Your task to perform on an android device: Go to ESPN.com Image 0: 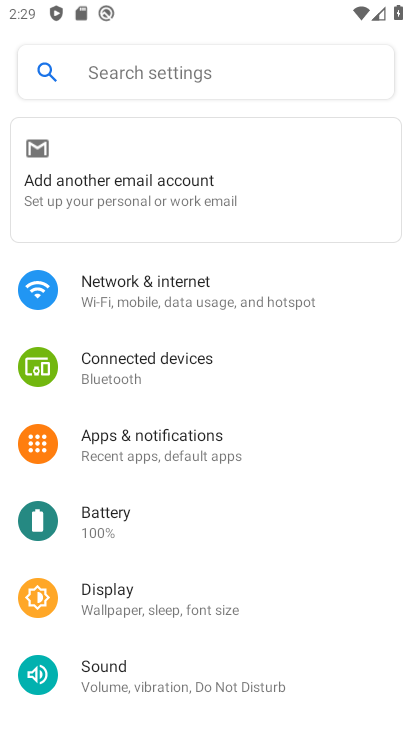
Step 0: press home button
Your task to perform on an android device: Go to ESPN.com Image 1: 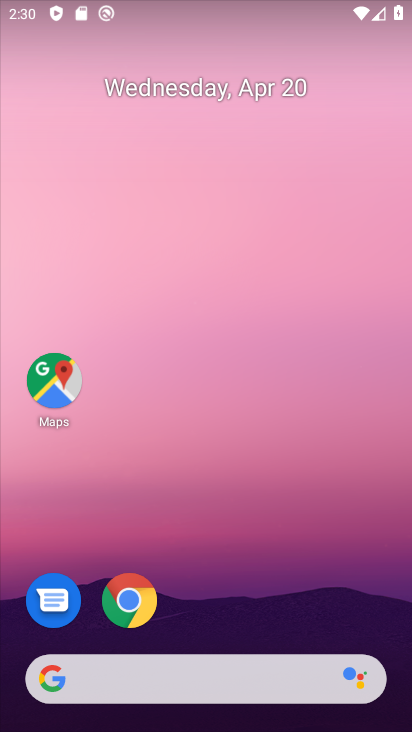
Step 1: drag from (230, 408) to (260, 96)
Your task to perform on an android device: Go to ESPN.com Image 2: 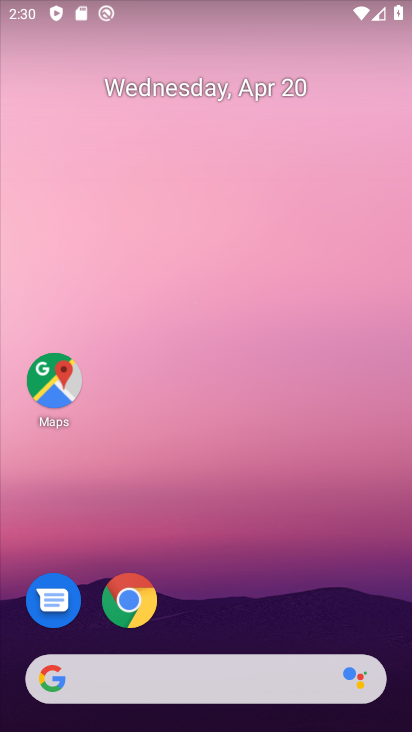
Step 2: drag from (249, 437) to (400, 10)
Your task to perform on an android device: Go to ESPN.com Image 3: 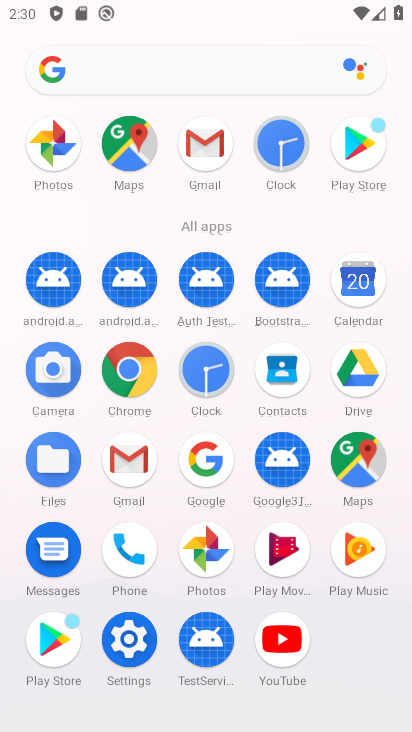
Step 3: click (149, 361)
Your task to perform on an android device: Go to ESPN.com Image 4: 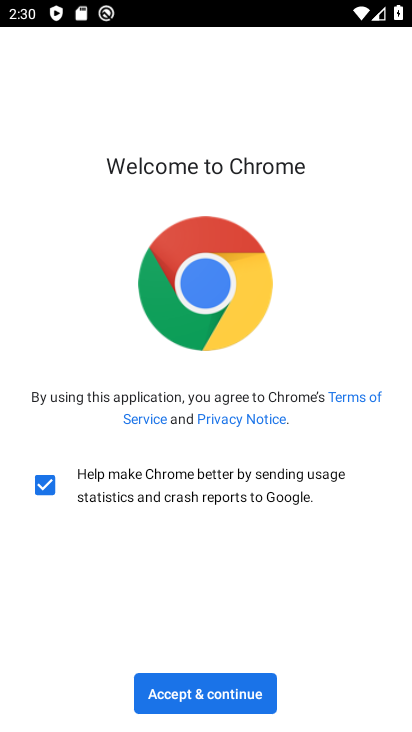
Step 4: click (251, 685)
Your task to perform on an android device: Go to ESPN.com Image 5: 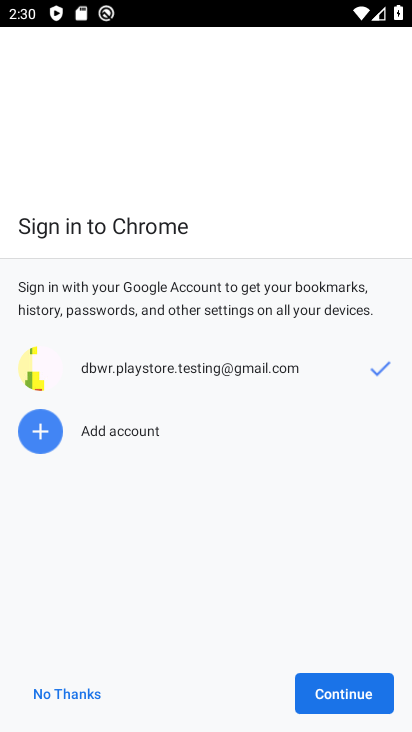
Step 5: click (66, 698)
Your task to perform on an android device: Go to ESPN.com Image 6: 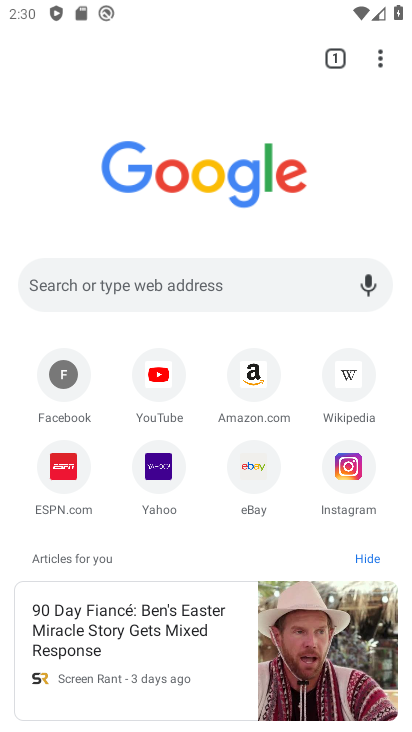
Step 6: click (170, 287)
Your task to perform on an android device: Go to ESPN.com Image 7: 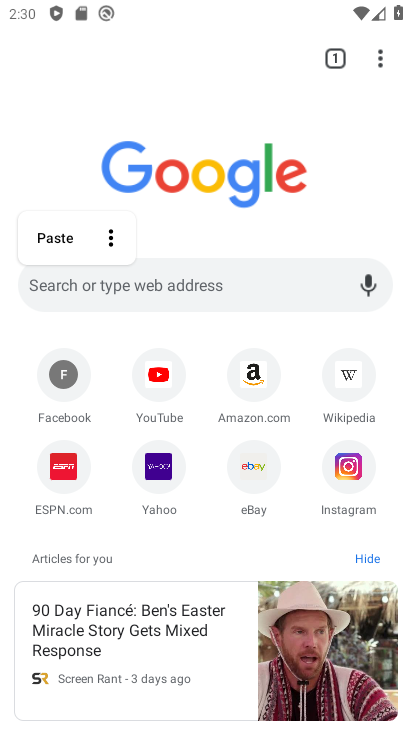
Step 7: type "espn.com"
Your task to perform on an android device: Go to ESPN.com Image 8: 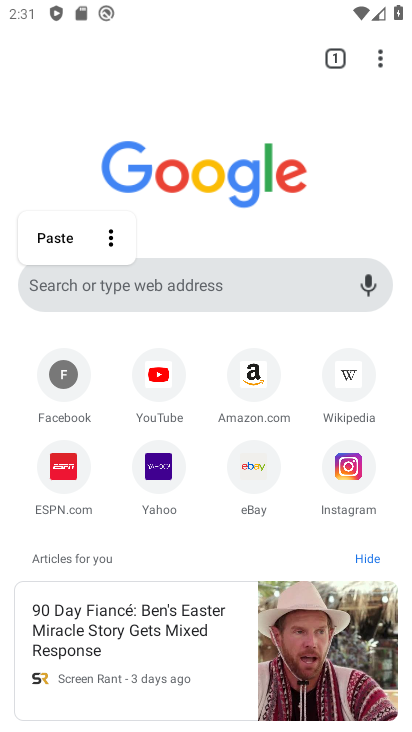
Step 8: click (154, 298)
Your task to perform on an android device: Go to ESPN.com Image 9: 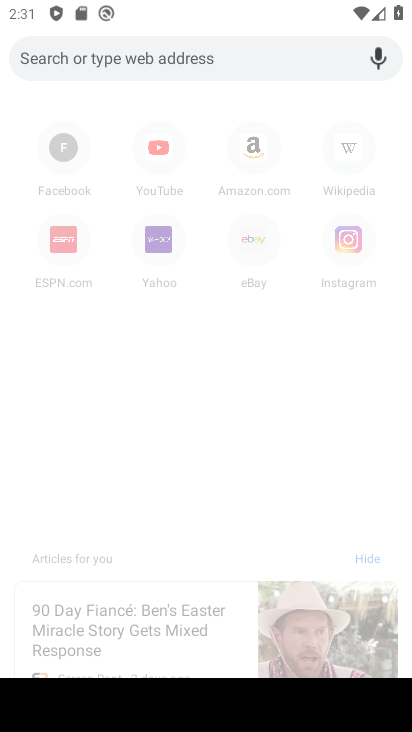
Step 9: type "espn.com"
Your task to perform on an android device: Go to ESPN.com Image 10: 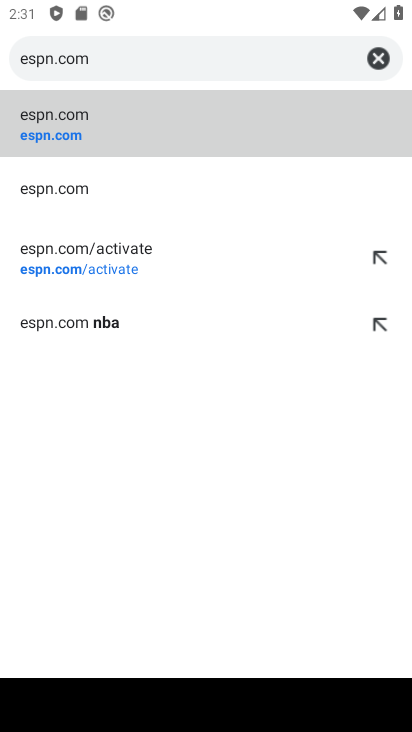
Step 10: click (25, 108)
Your task to perform on an android device: Go to ESPN.com Image 11: 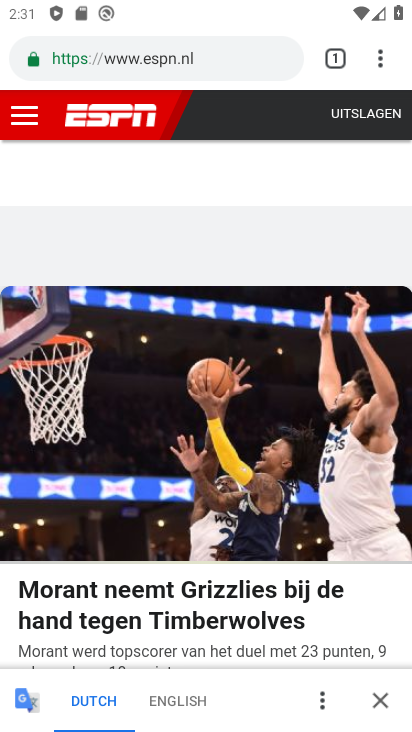
Step 11: task complete